Your task to perform on an android device: turn on translation in the chrome app Image 0: 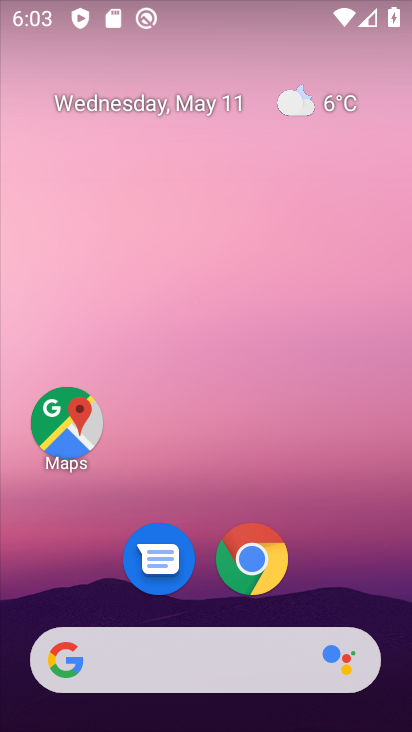
Step 0: click (248, 561)
Your task to perform on an android device: turn on translation in the chrome app Image 1: 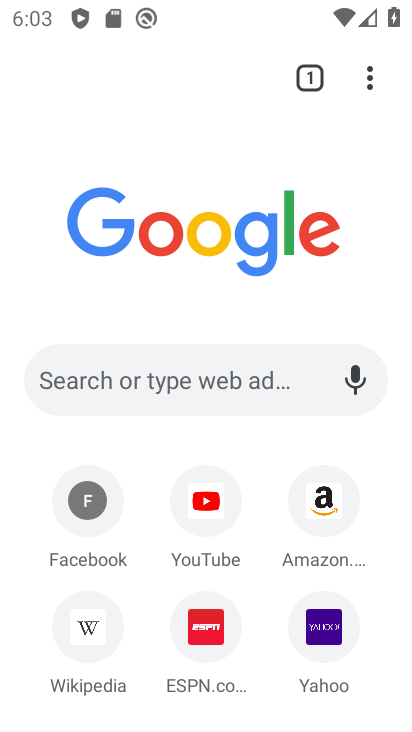
Step 1: drag from (373, 59) to (118, 646)
Your task to perform on an android device: turn on translation in the chrome app Image 2: 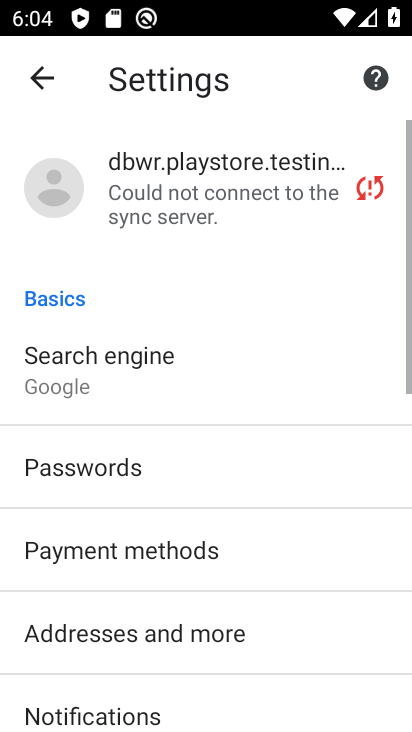
Step 2: drag from (102, 609) to (134, 224)
Your task to perform on an android device: turn on translation in the chrome app Image 3: 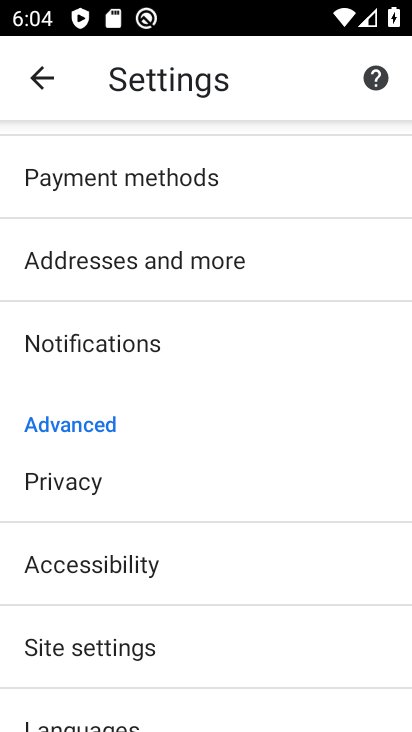
Step 3: drag from (130, 578) to (134, 341)
Your task to perform on an android device: turn on translation in the chrome app Image 4: 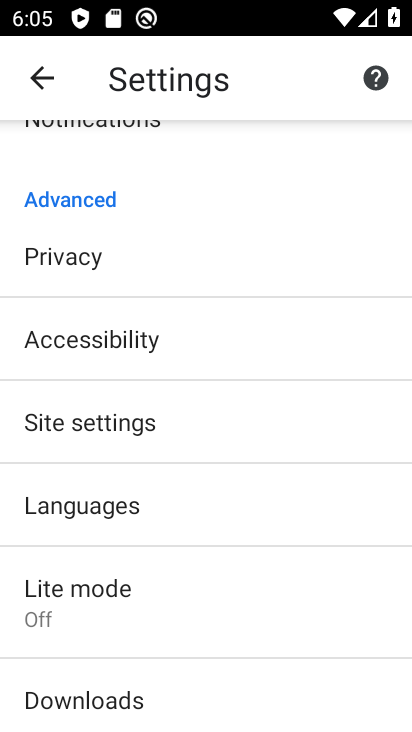
Step 4: click (97, 511)
Your task to perform on an android device: turn on translation in the chrome app Image 5: 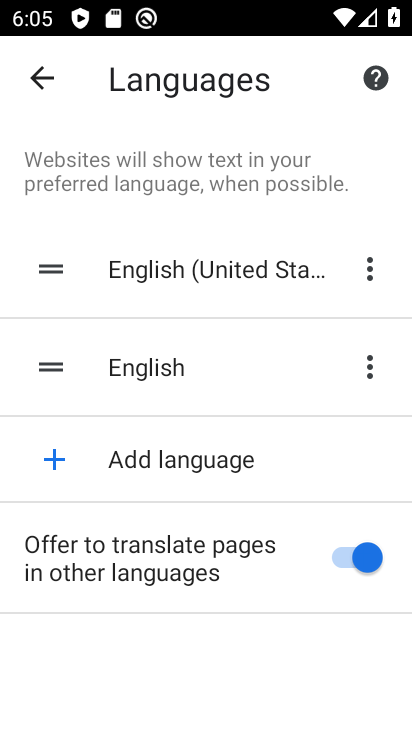
Step 5: task complete